Your task to perform on an android device: When is my next appointment? Image 0: 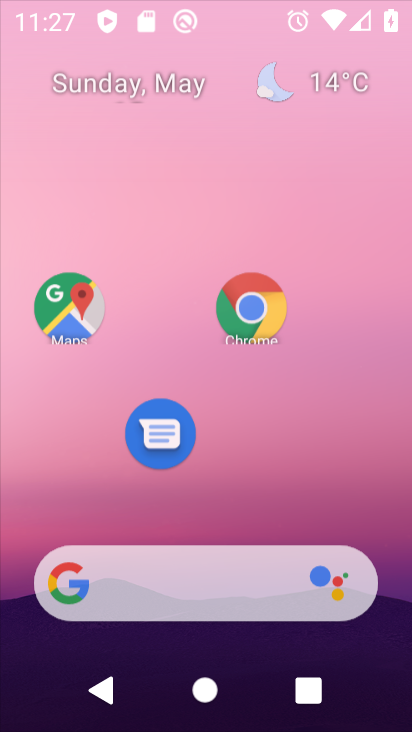
Step 0: press home button
Your task to perform on an android device: When is my next appointment? Image 1: 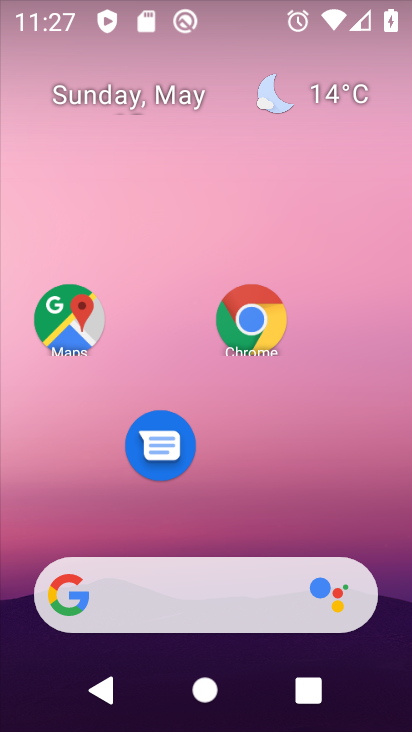
Step 1: drag from (186, 583) to (322, 111)
Your task to perform on an android device: When is my next appointment? Image 2: 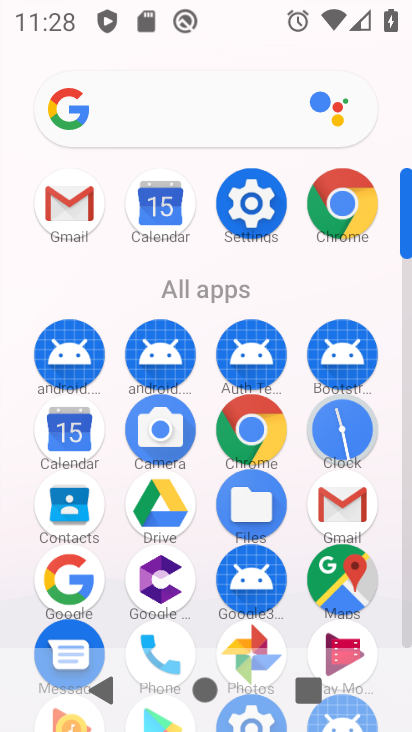
Step 2: click (157, 213)
Your task to perform on an android device: When is my next appointment? Image 3: 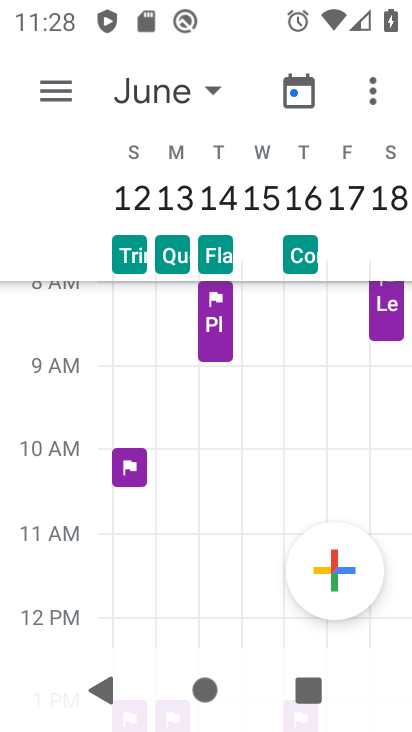
Step 3: click (135, 87)
Your task to perform on an android device: When is my next appointment? Image 4: 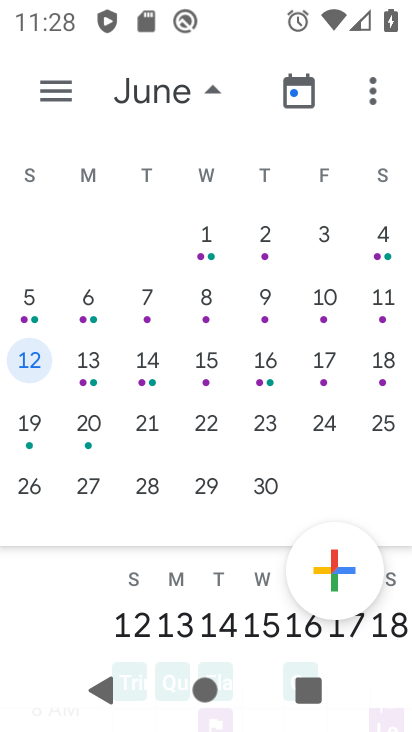
Step 4: drag from (92, 330) to (397, 356)
Your task to perform on an android device: When is my next appointment? Image 5: 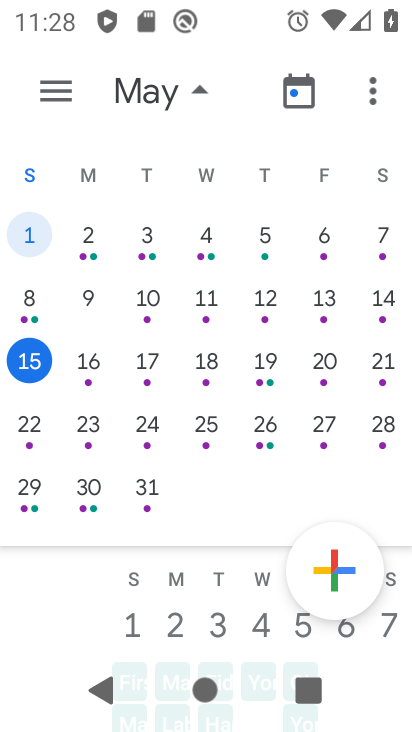
Step 5: click (32, 361)
Your task to perform on an android device: When is my next appointment? Image 6: 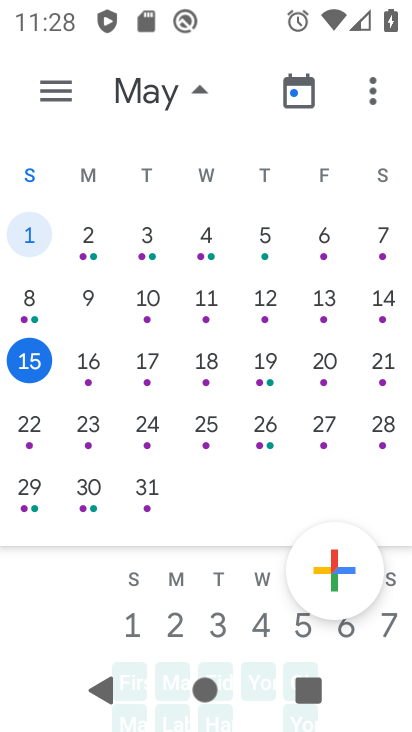
Step 6: click (61, 93)
Your task to perform on an android device: When is my next appointment? Image 7: 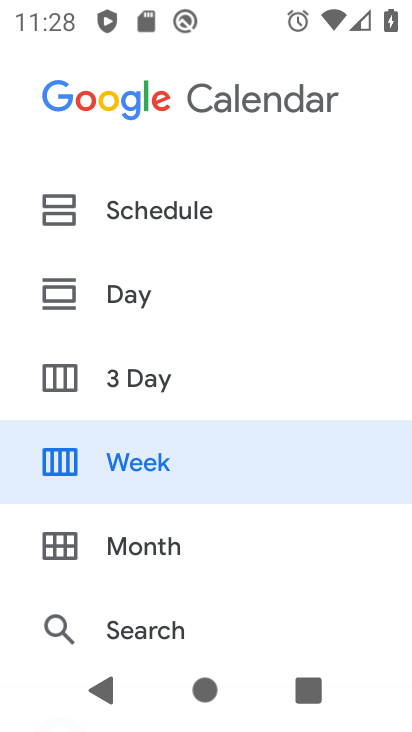
Step 7: click (126, 218)
Your task to perform on an android device: When is my next appointment? Image 8: 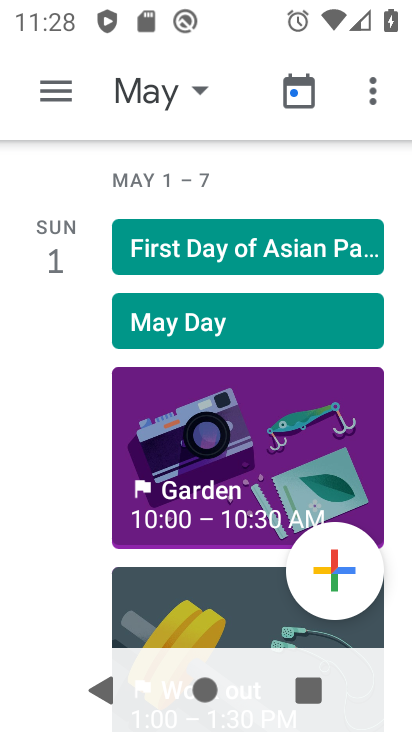
Step 8: click (179, 447)
Your task to perform on an android device: When is my next appointment? Image 9: 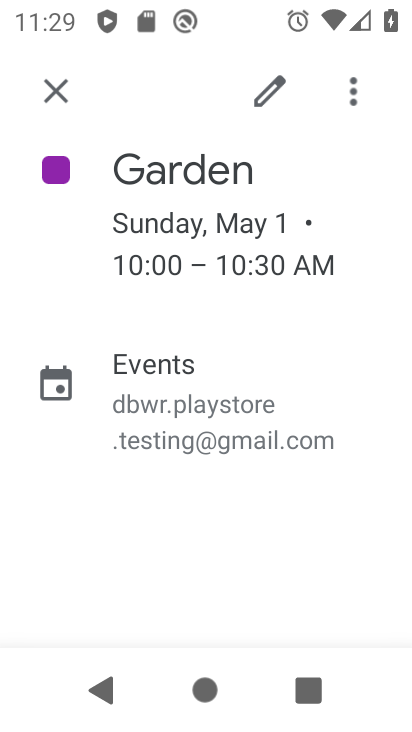
Step 9: task complete